Your task to perform on an android device: turn on airplane mode Image 0: 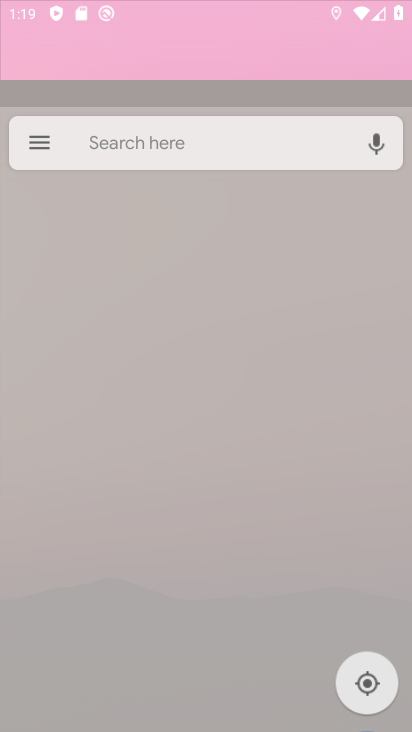
Step 0: drag from (142, 130) to (117, 0)
Your task to perform on an android device: turn on airplane mode Image 1: 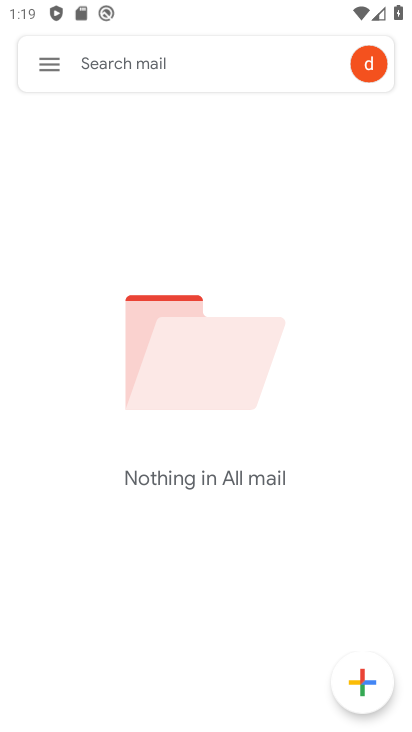
Step 1: press home button
Your task to perform on an android device: turn on airplane mode Image 2: 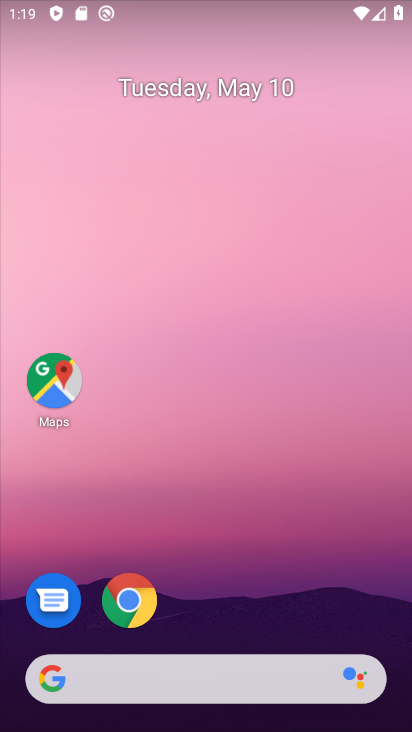
Step 2: drag from (185, 638) to (123, 8)
Your task to perform on an android device: turn on airplane mode Image 3: 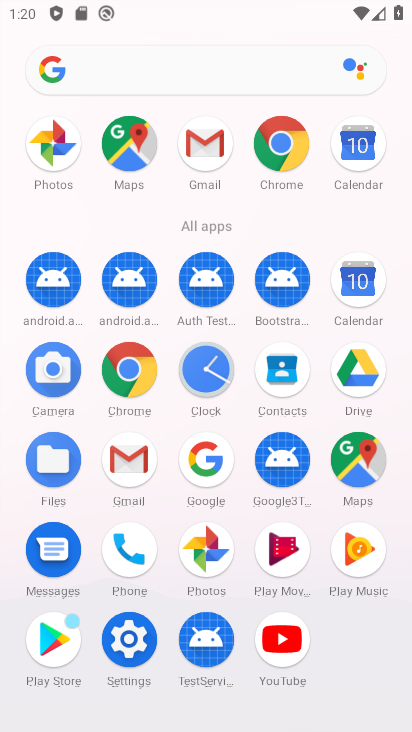
Step 3: click (127, 656)
Your task to perform on an android device: turn on airplane mode Image 4: 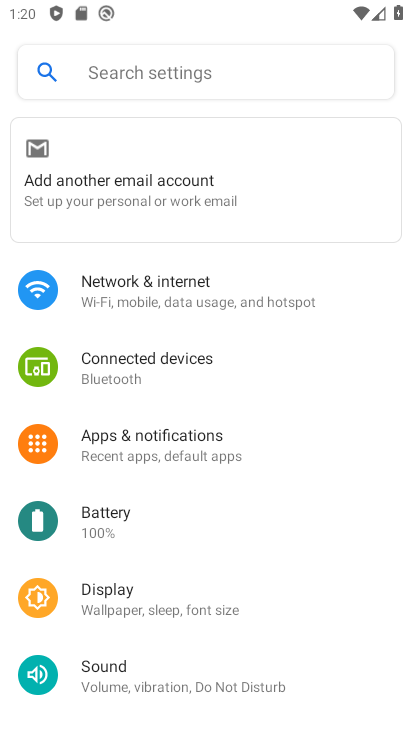
Step 4: click (133, 273)
Your task to perform on an android device: turn on airplane mode Image 5: 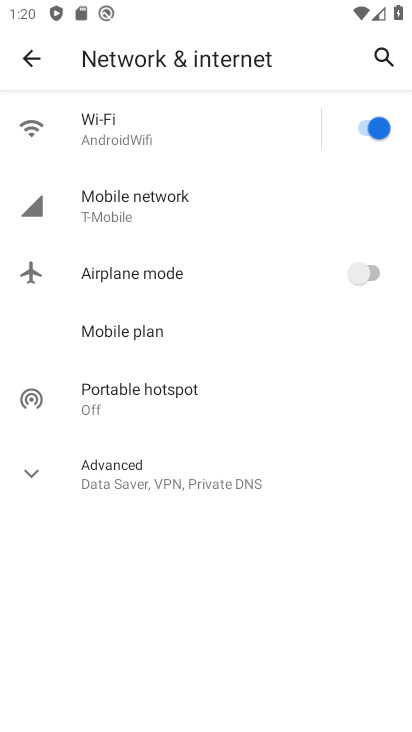
Step 5: click (378, 281)
Your task to perform on an android device: turn on airplane mode Image 6: 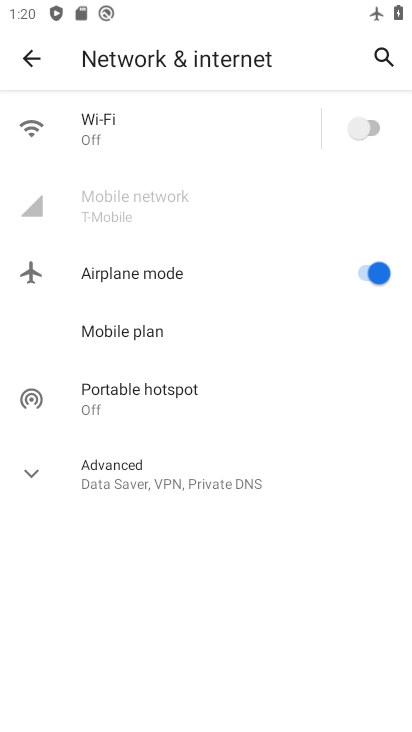
Step 6: task complete